Your task to perform on an android device: open a bookmark in the chrome app Image 0: 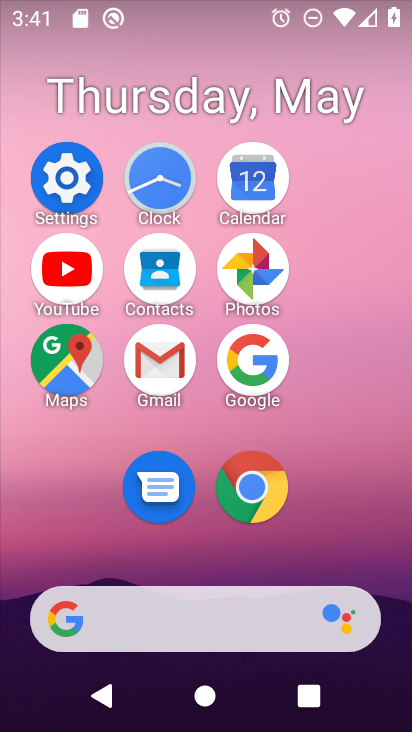
Step 0: click (258, 497)
Your task to perform on an android device: open a bookmark in the chrome app Image 1: 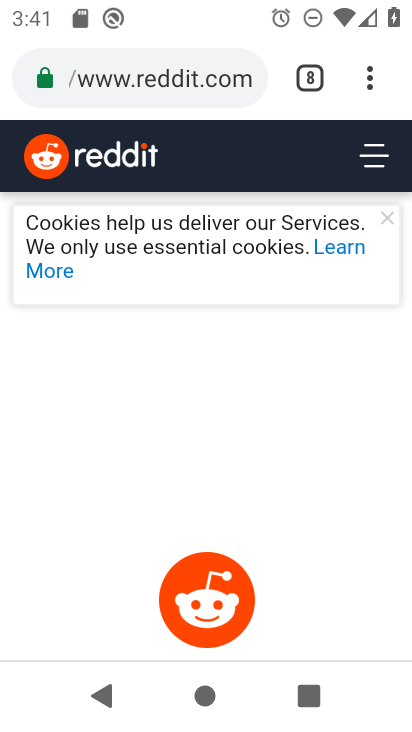
Step 1: click (376, 79)
Your task to perform on an android device: open a bookmark in the chrome app Image 2: 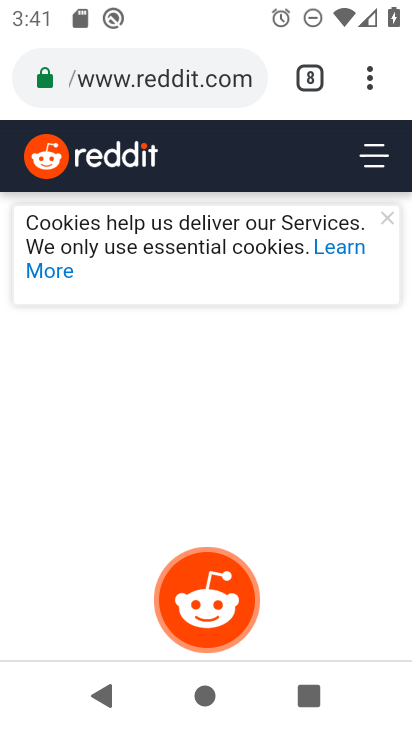
Step 2: click (383, 82)
Your task to perform on an android device: open a bookmark in the chrome app Image 3: 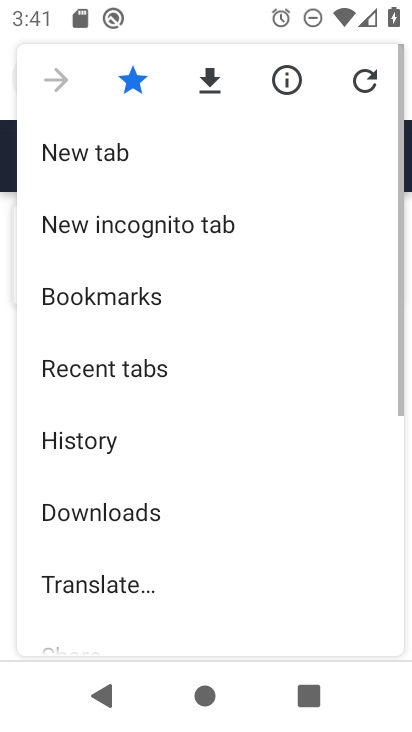
Step 3: drag from (197, 558) to (218, 282)
Your task to perform on an android device: open a bookmark in the chrome app Image 4: 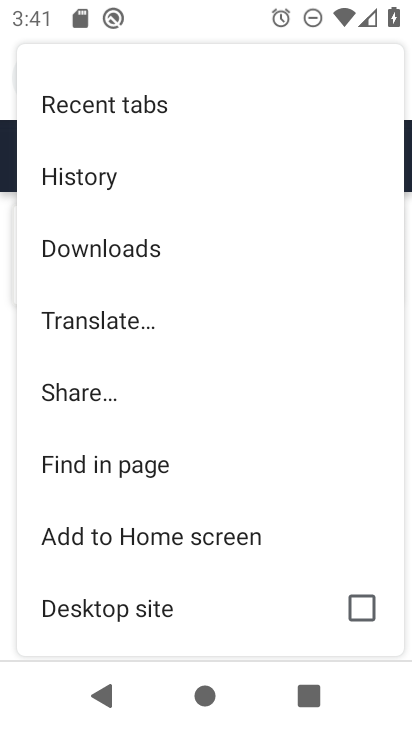
Step 4: drag from (260, 190) to (287, 431)
Your task to perform on an android device: open a bookmark in the chrome app Image 5: 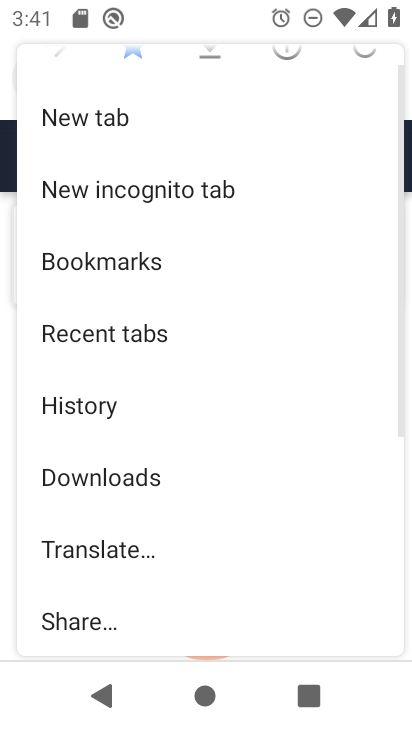
Step 5: click (148, 252)
Your task to perform on an android device: open a bookmark in the chrome app Image 6: 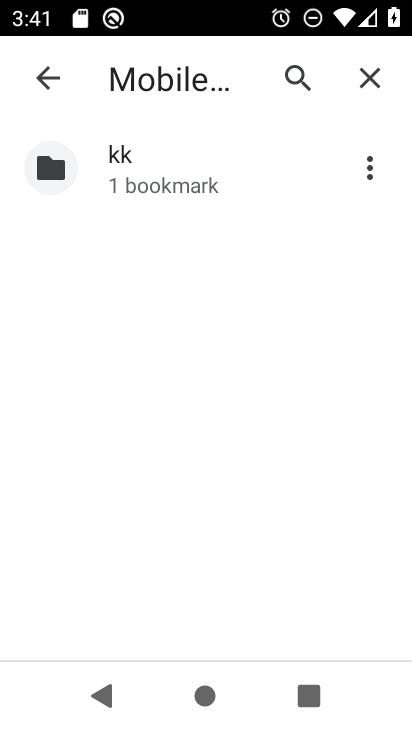
Step 6: task complete